Your task to perform on an android device: Open ESPN.com Image 0: 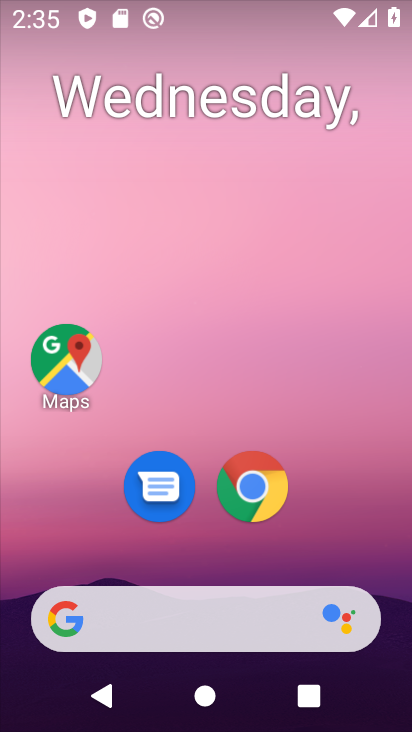
Step 0: click (244, 482)
Your task to perform on an android device: Open ESPN.com Image 1: 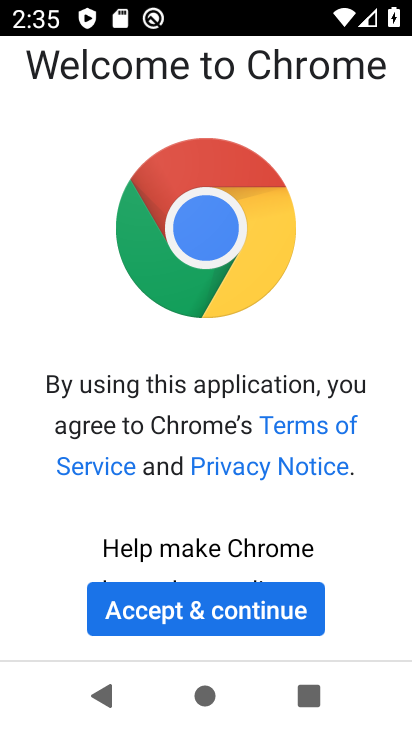
Step 1: click (252, 622)
Your task to perform on an android device: Open ESPN.com Image 2: 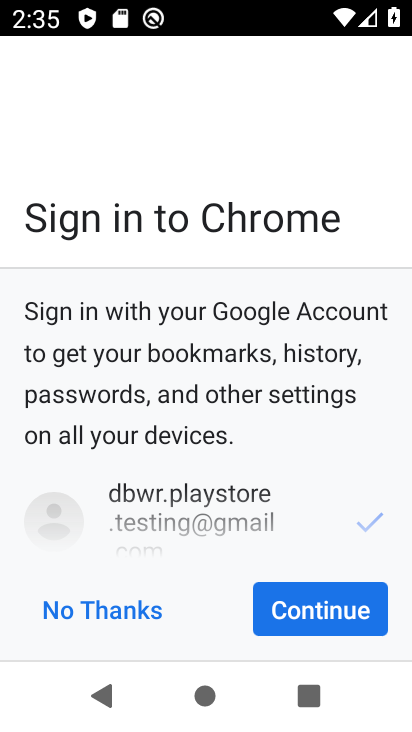
Step 2: click (280, 618)
Your task to perform on an android device: Open ESPN.com Image 3: 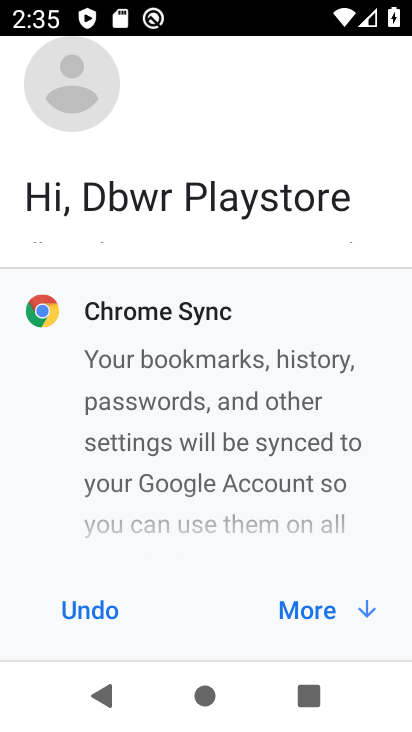
Step 3: click (280, 618)
Your task to perform on an android device: Open ESPN.com Image 4: 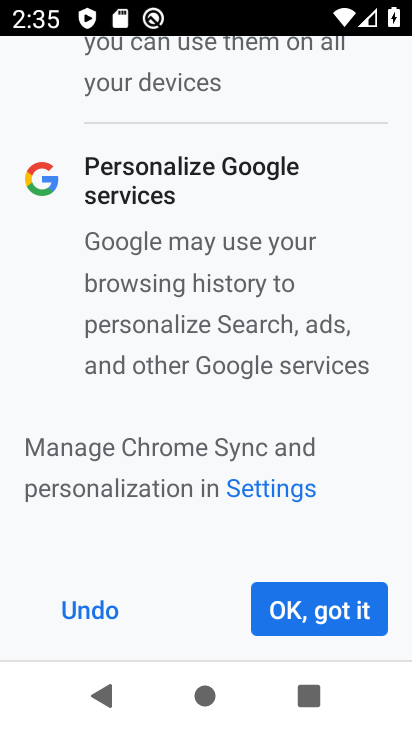
Step 4: click (280, 618)
Your task to perform on an android device: Open ESPN.com Image 5: 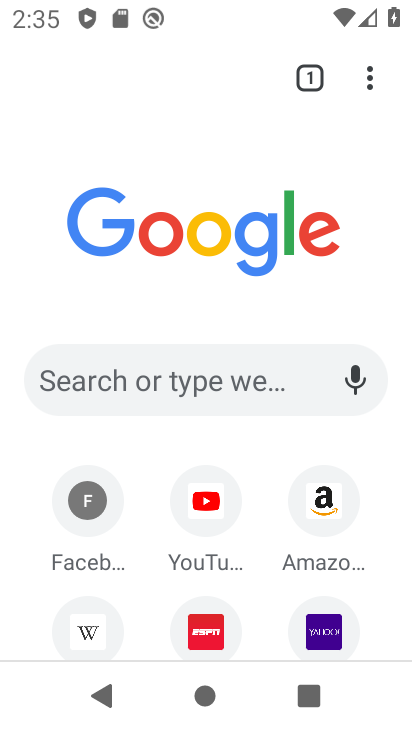
Step 5: click (212, 638)
Your task to perform on an android device: Open ESPN.com Image 6: 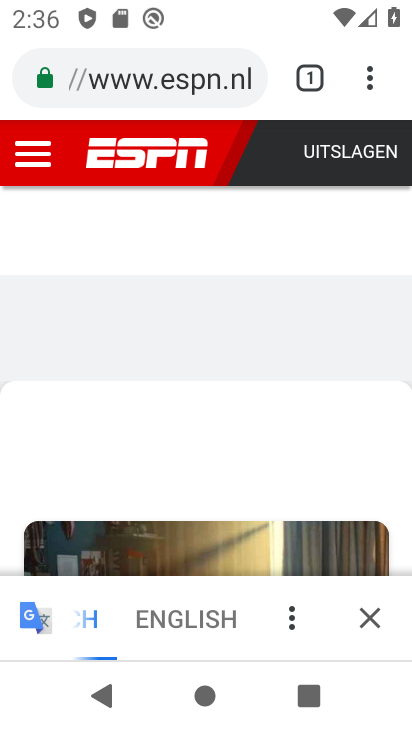
Step 6: task complete